Your task to perform on an android device: Open the stopwatch Image 0: 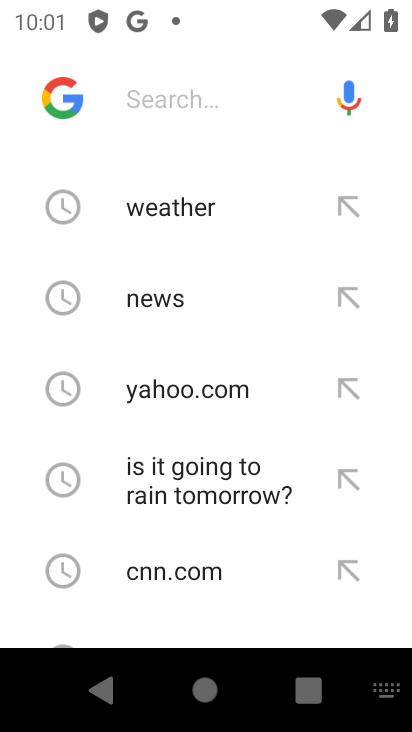
Step 0: press back button
Your task to perform on an android device: Open the stopwatch Image 1: 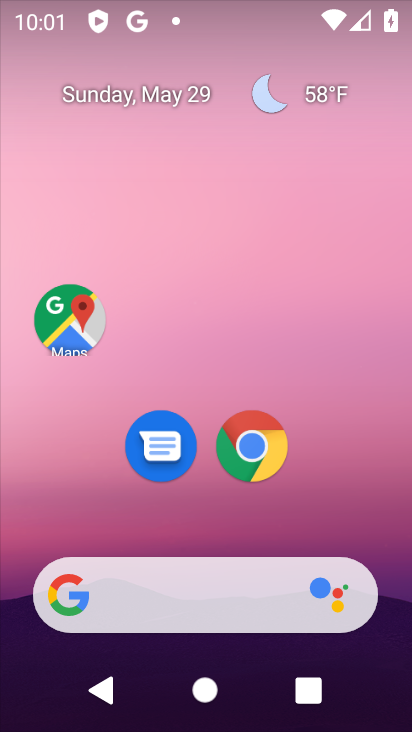
Step 1: drag from (369, 518) to (228, 0)
Your task to perform on an android device: Open the stopwatch Image 2: 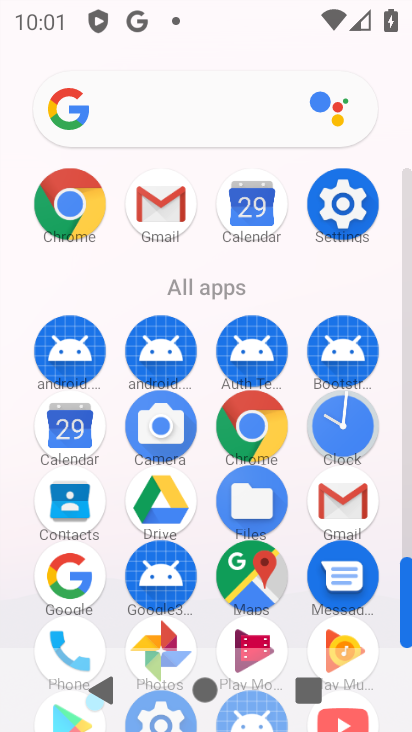
Step 2: click (339, 418)
Your task to perform on an android device: Open the stopwatch Image 3: 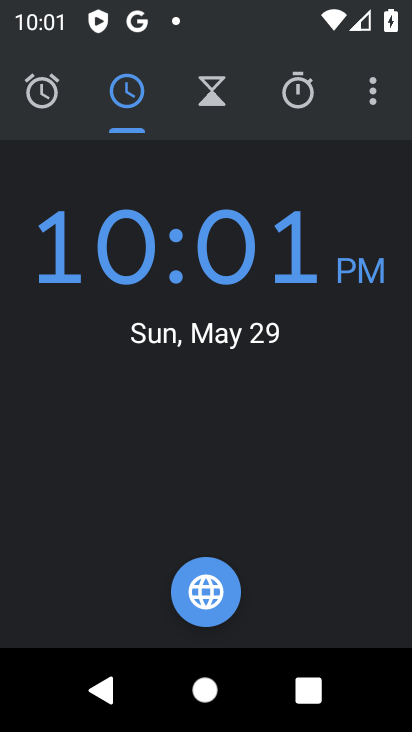
Step 3: drag from (368, 99) to (145, 182)
Your task to perform on an android device: Open the stopwatch Image 4: 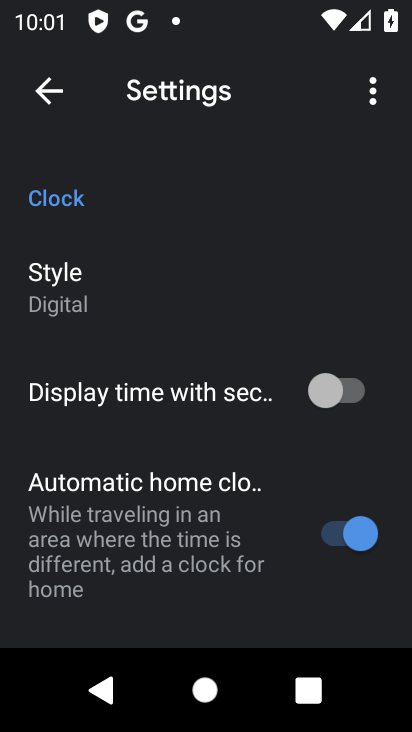
Step 4: click (58, 87)
Your task to perform on an android device: Open the stopwatch Image 5: 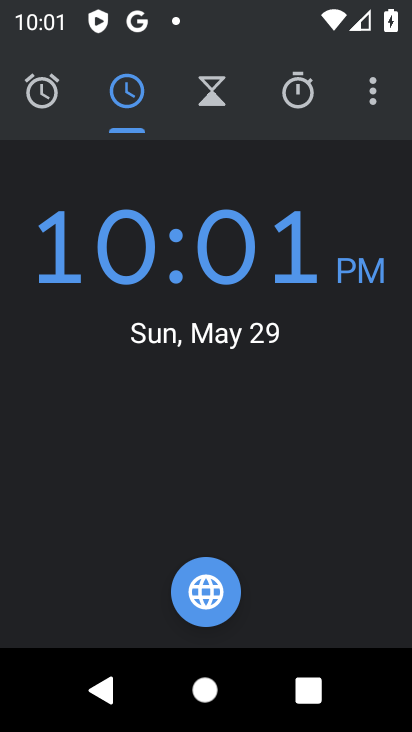
Step 5: click (301, 84)
Your task to perform on an android device: Open the stopwatch Image 6: 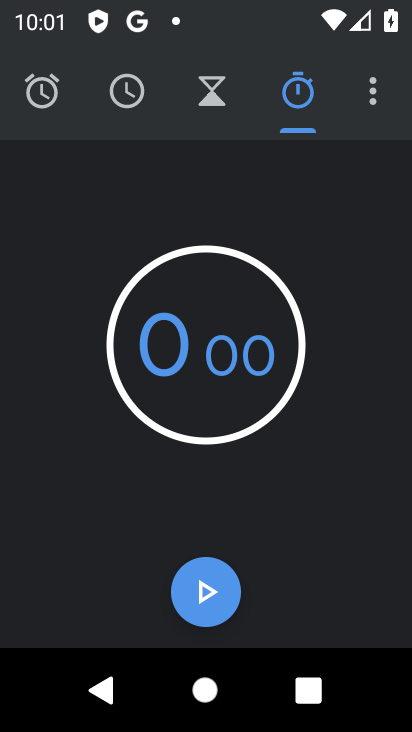
Step 6: task complete